Your task to perform on an android device: check out phone information Image 0: 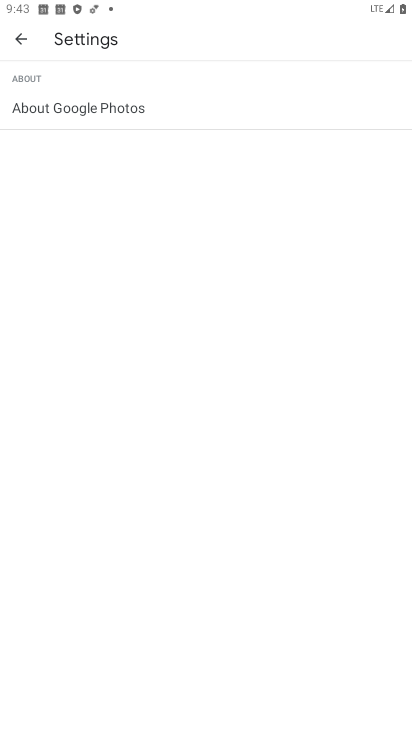
Step 0: drag from (272, 594) to (297, 279)
Your task to perform on an android device: check out phone information Image 1: 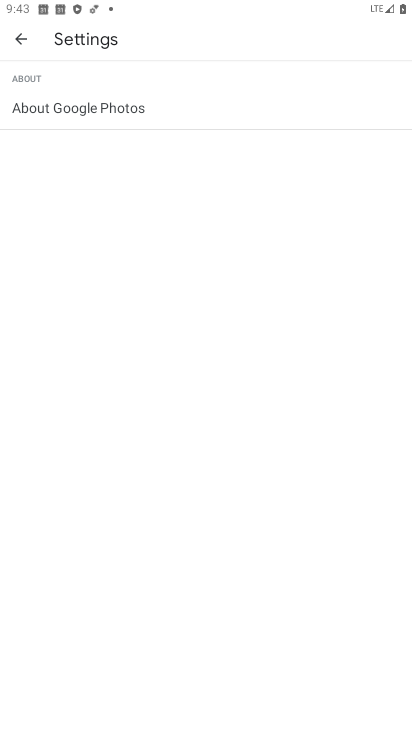
Step 1: drag from (237, 526) to (237, 357)
Your task to perform on an android device: check out phone information Image 2: 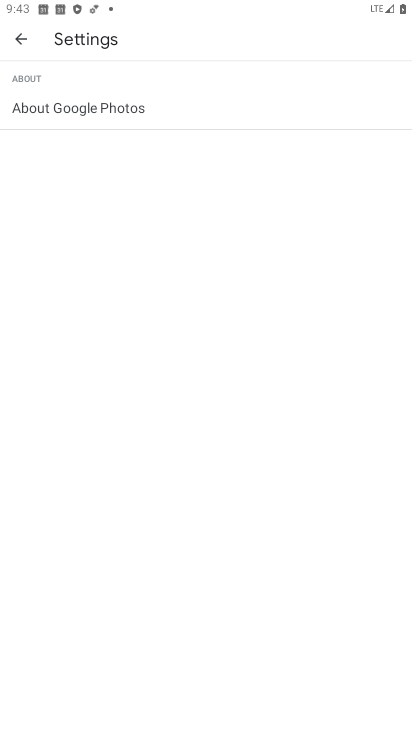
Step 2: drag from (210, 545) to (226, 187)
Your task to perform on an android device: check out phone information Image 3: 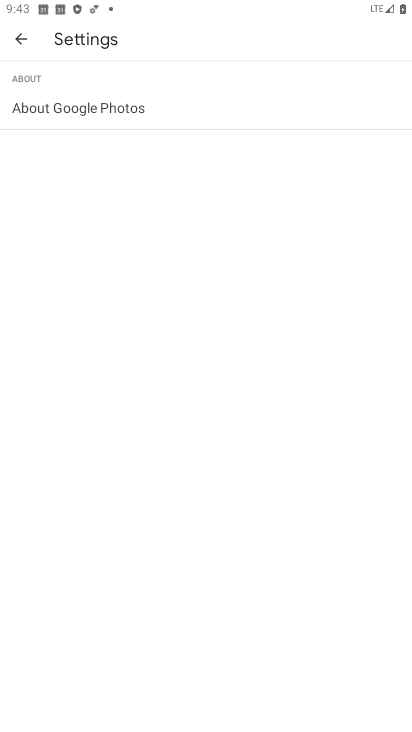
Step 3: press home button
Your task to perform on an android device: check out phone information Image 4: 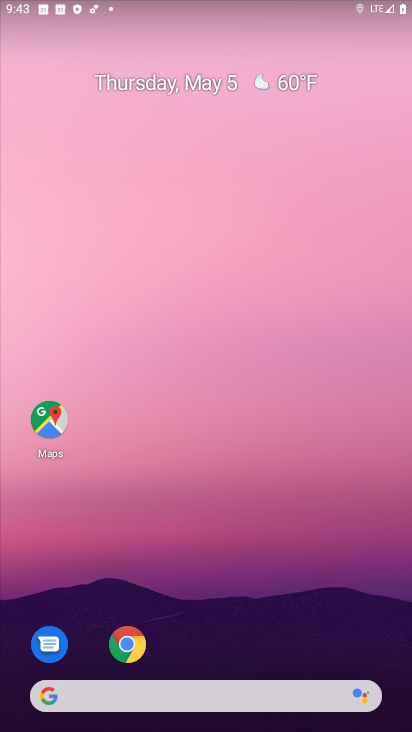
Step 4: drag from (199, 663) to (202, 22)
Your task to perform on an android device: check out phone information Image 5: 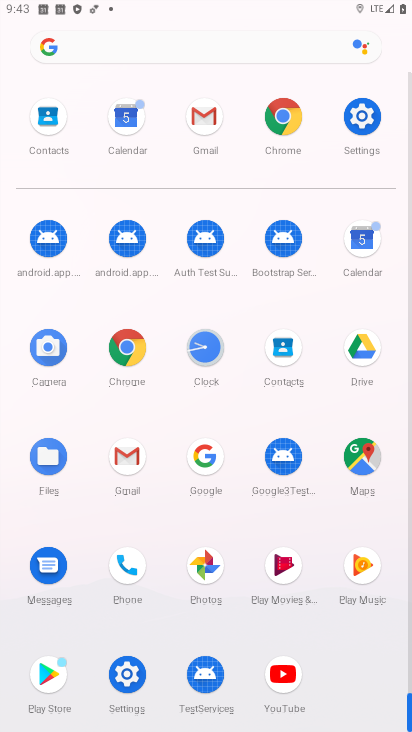
Step 5: click (369, 113)
Your task to perform on an android device: check out phone information Image 6: 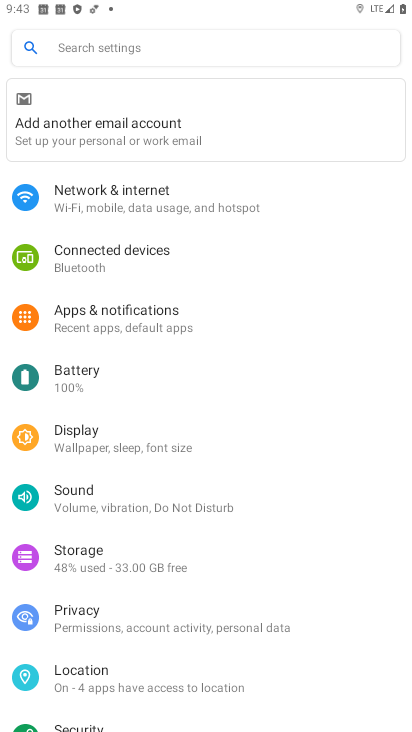
Step 6: drag from (150, 542) to (173, 11)
Your task to perform on an android device: check out phone information Image 7: 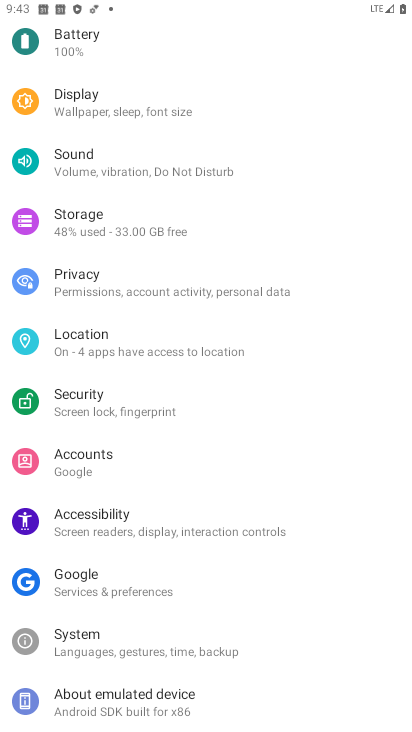
Step 7: click (167, 710)
Your task to perform on an android device: check out phone information Image 8: 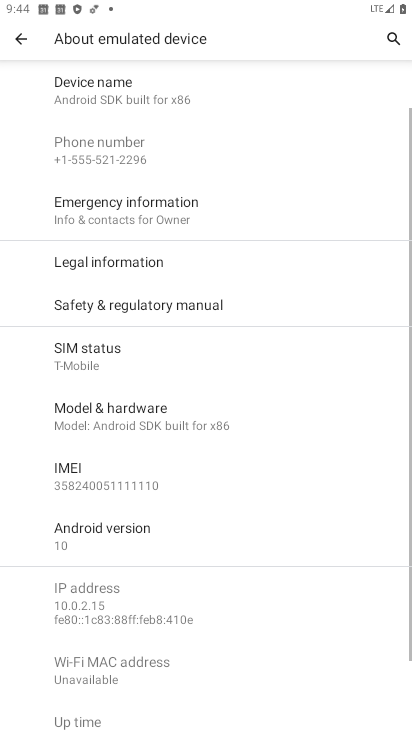
Step 8: task complete